Your task to perform on an android device: find photos in the google photos app Image 0: 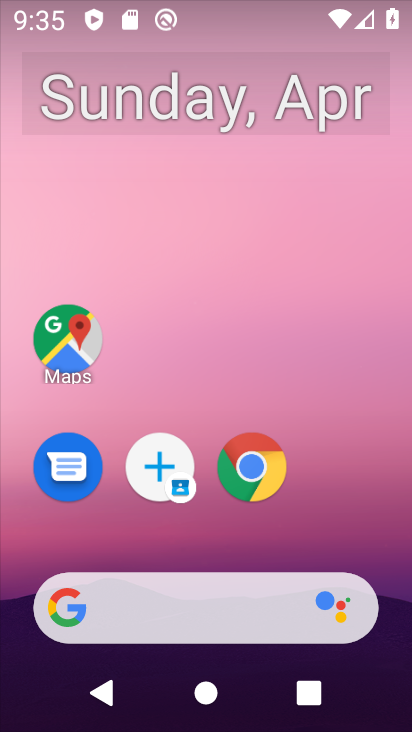
Step 0: task complete